Your task to perform on an android device: turn off notifications in google photos Image 0: 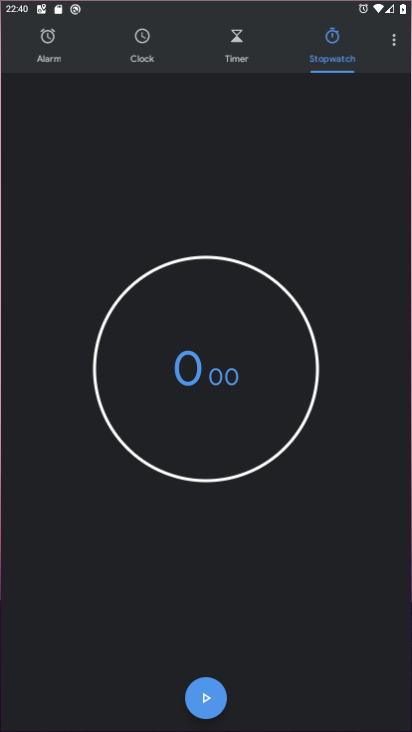
Step 0: press home button
Your task to perform on an android device: turn off notifications in google photos Image 1: 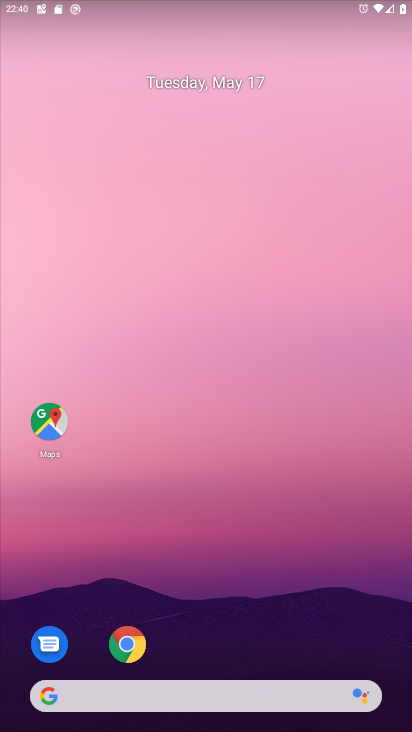
Step 1: drag from (205, 640) to (214, 329)
Your task to perform on an android device: turn off notifications in google photos Image 2: 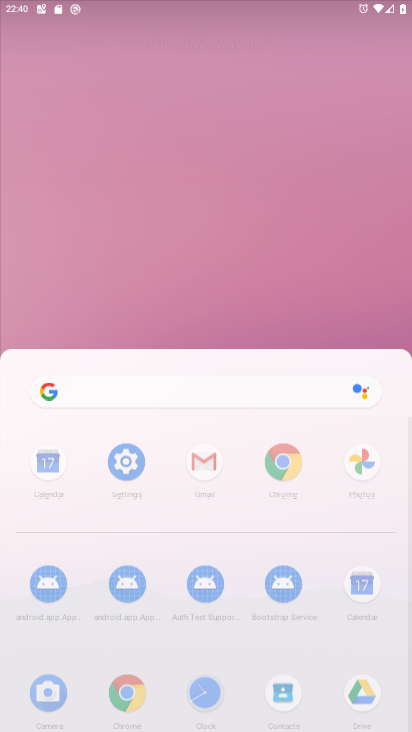
Step 2: click (187, 47)
Your task to perform on an android device: turn off notifications in google photos Image 3: 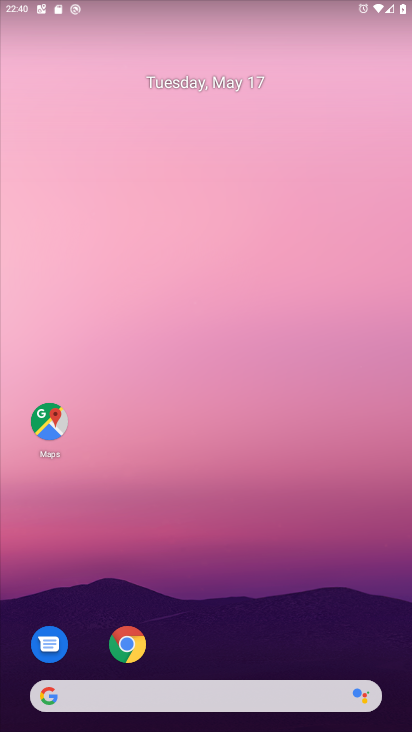
Step 3: drag from (239, 664) to (222, 46)
Your task to perform on an android device: turn off notifications in google photos Image 4: 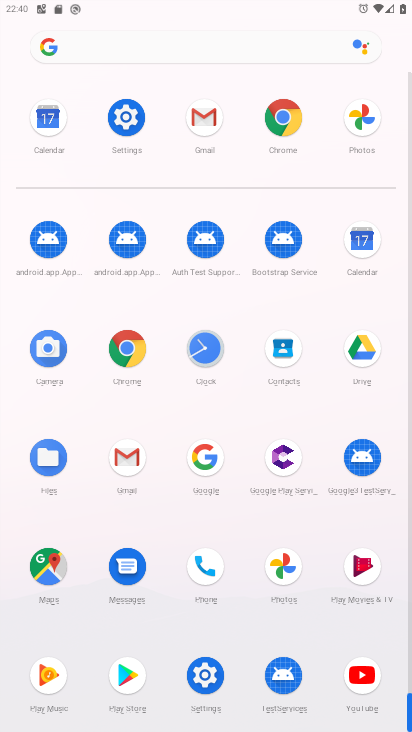
Step 4: click (359, 112)
Your task to perform on an android device: turn off notifications in google photos Image 5: 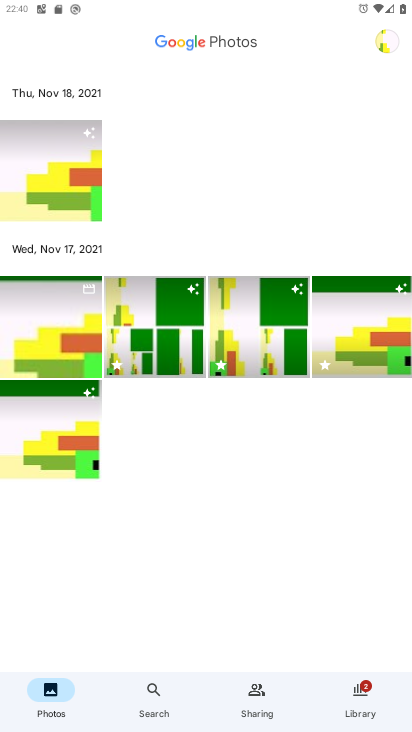
Step 5: click (387, 38)
Your task to perform on an android device: turn off notifications in google photos Image 6: 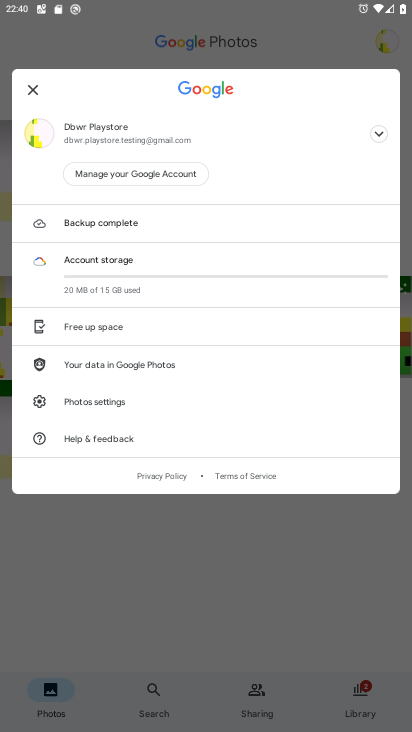
Step 6: click (124, 406)
Your task to perform on an android device: turn off notifications in google photos Image 7: 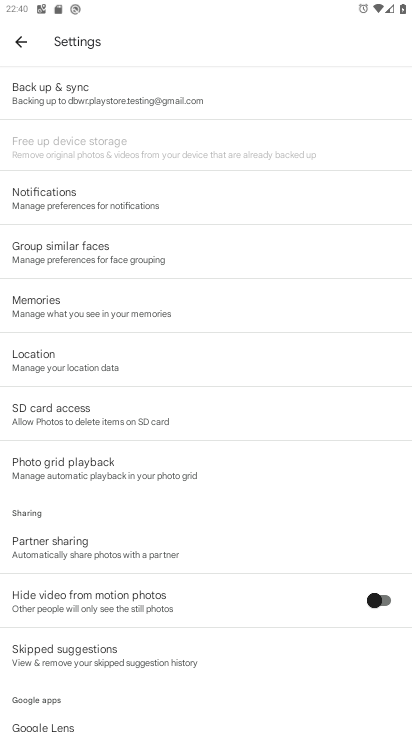
Step 7: click (95, 188)
Your task to perform on an android device: turn off notifications in google photos Image 8: 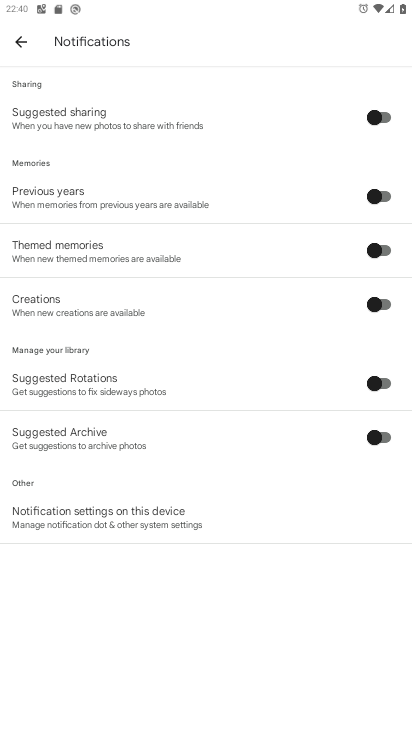
Step 8: click (142, 515)
Your task to perform on an android device: turn off notifications in google photos Image 9: 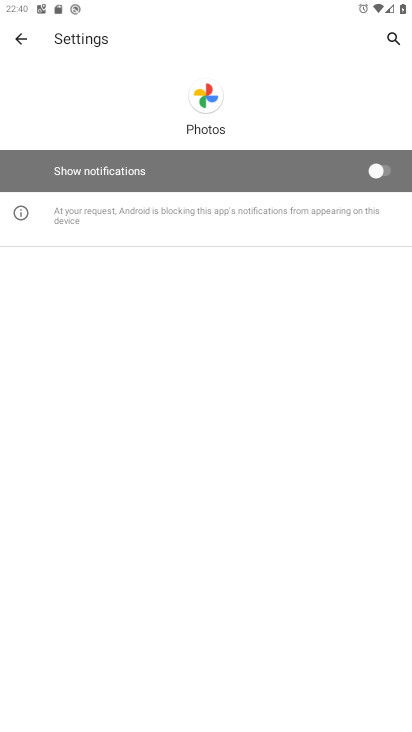
Step 9: task complete